Your task to perform on an android device: Go to notification settings Image 0: 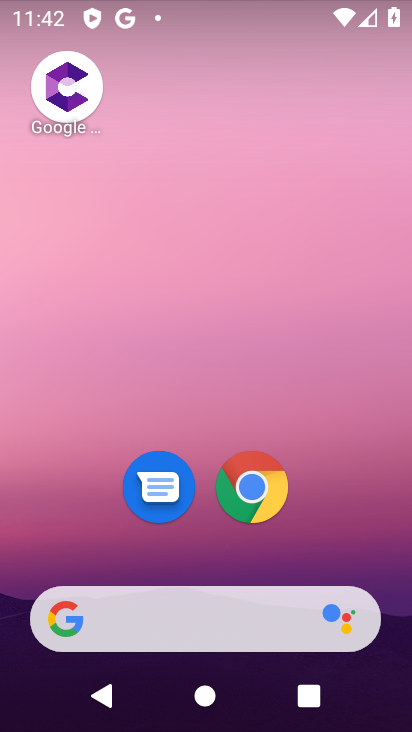
Step 0: drag from (216, 560) to (243, 2)
Your task to perform on an android device: Go to notification settings Image 1: 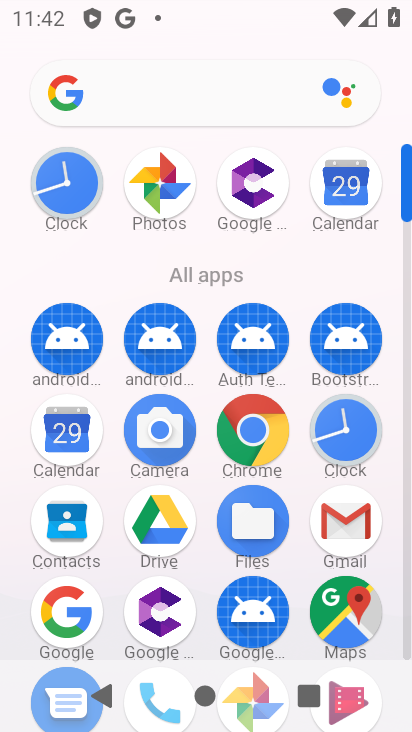
Step 1: drag from (211, 560) to (225, 104)
Your task to perform on an android device: Go to notification settings Image 2: 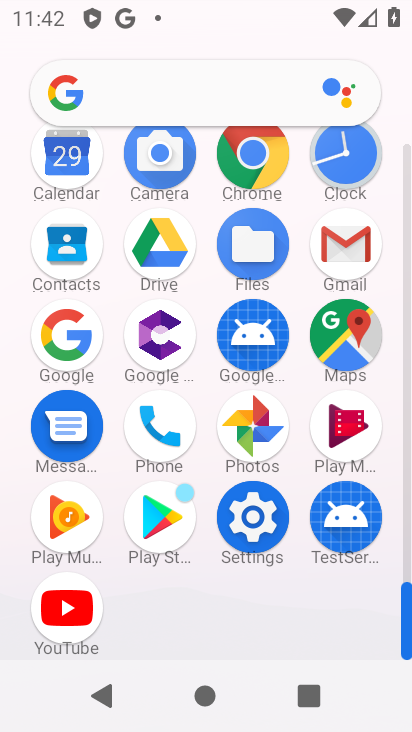
Step 2: click (245, 517)
Your task to perform on an android device: Go to notification settings Image 3: 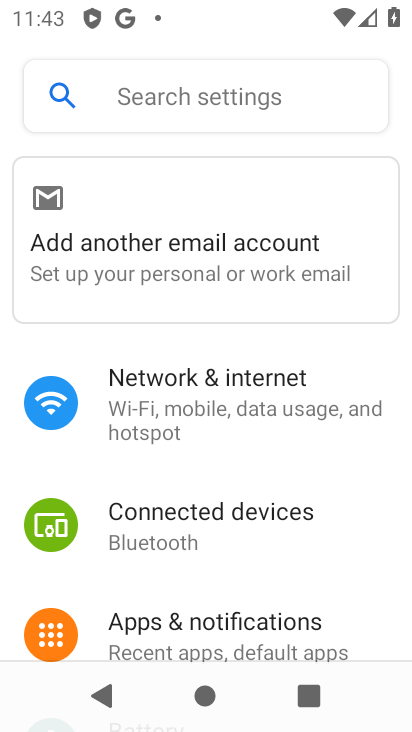
Step 3: click (220, 637)
Your task to perform on an android device: Go to notification settings Image 4: 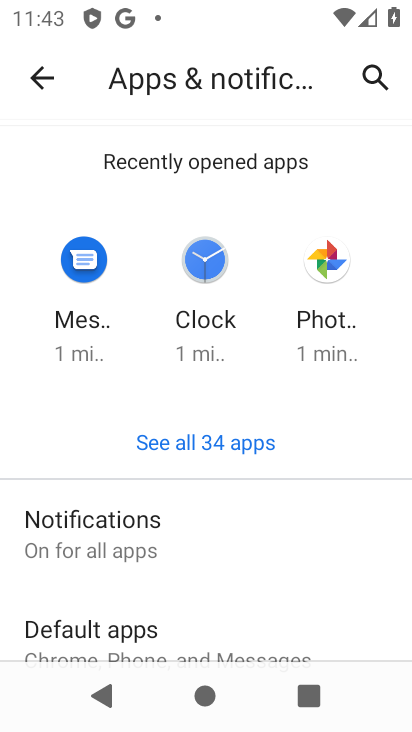
Step 4: click (114, 536)
Your task to perform on an android device: Go to notification settings Image 5: 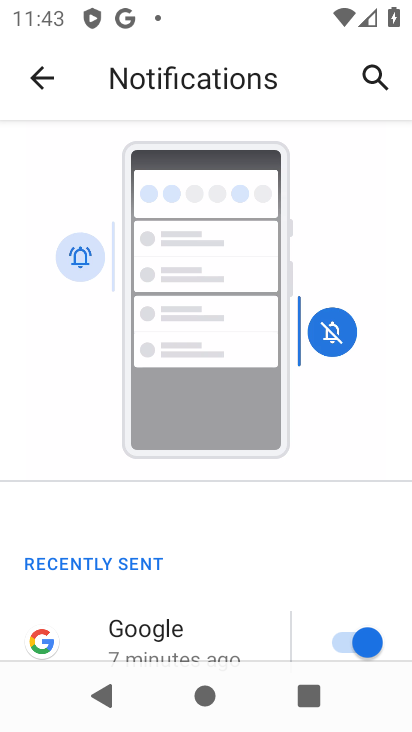
Step 5: task complete